Your task to perform on an android device: Search for sushi restaurants on Maps Image 0: 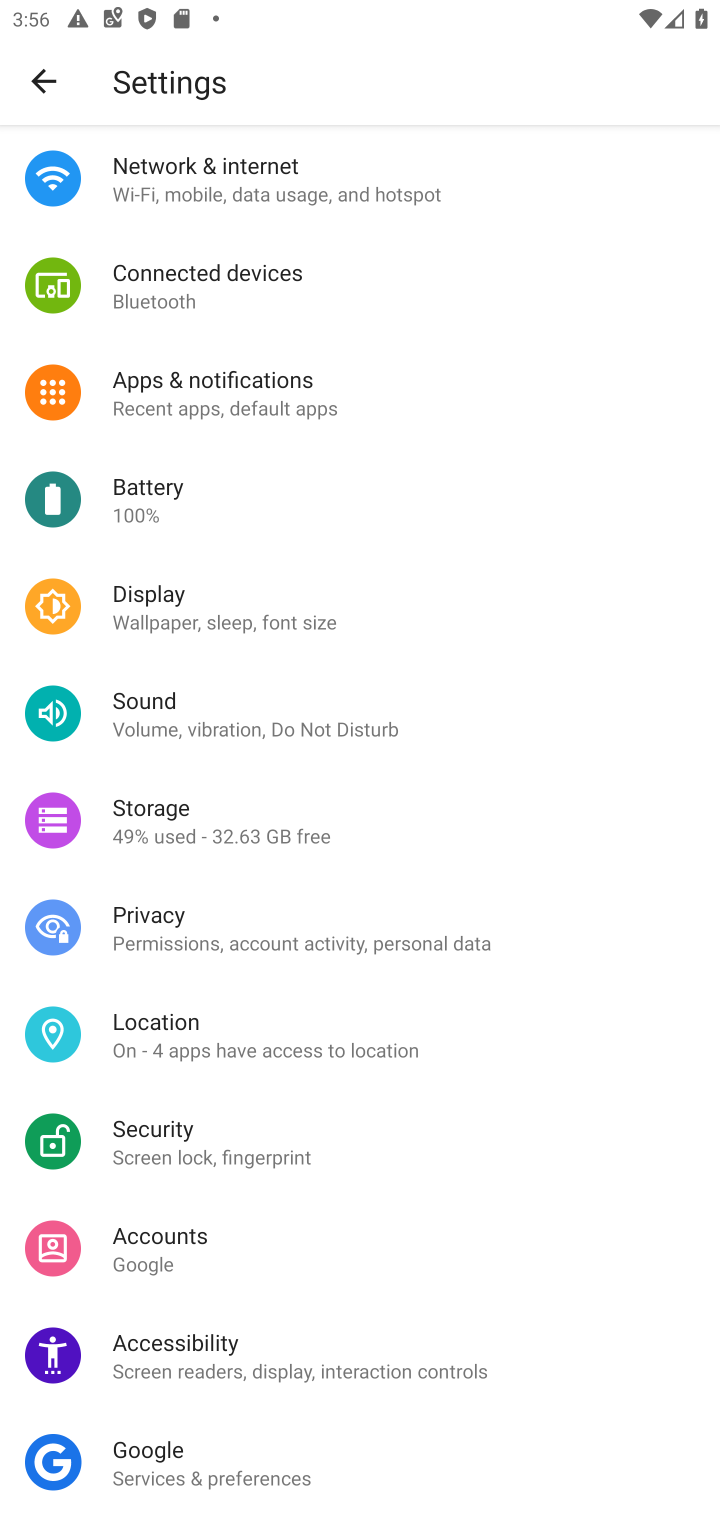
Step 0: press home button
Your task to perform on an android device: Search for sushi restaurants on Maps Image 1: 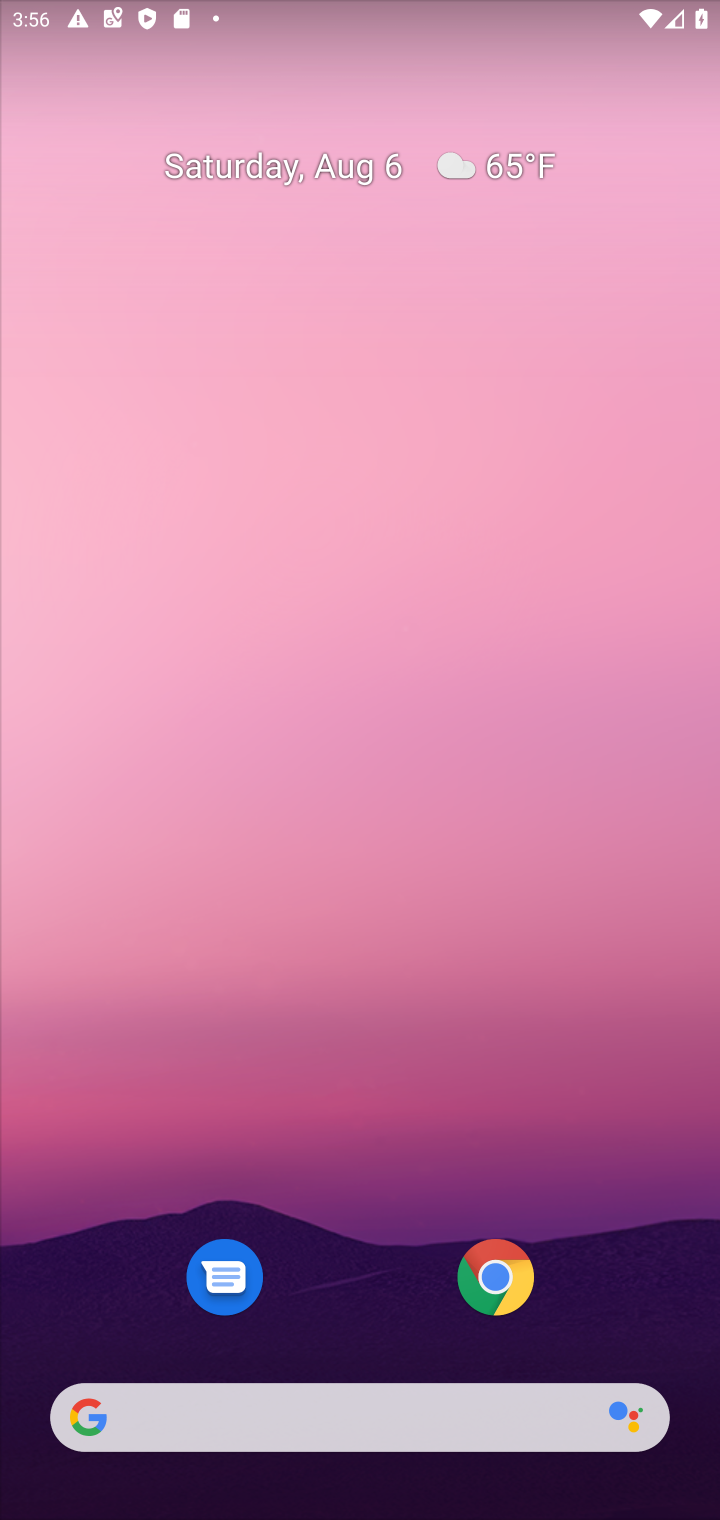
Step 1: drag from (365, 1405) to (520, 341)
Your task to perform on an android device: Search for sushi restaurants on Maps Image 2: 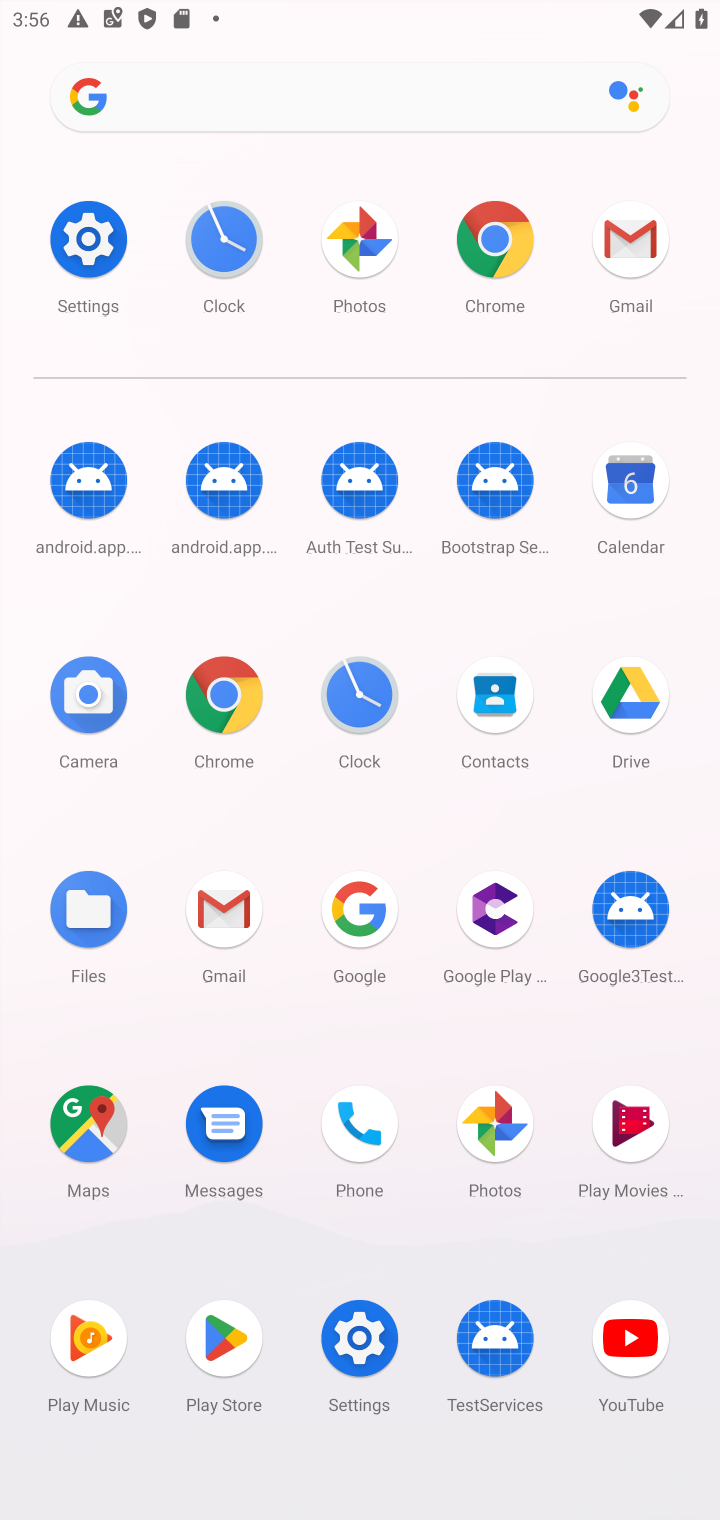
Step 2: click (59, 1142)
Your task to perform on an android device: Search for sushi restaurants on Maps Image 3: 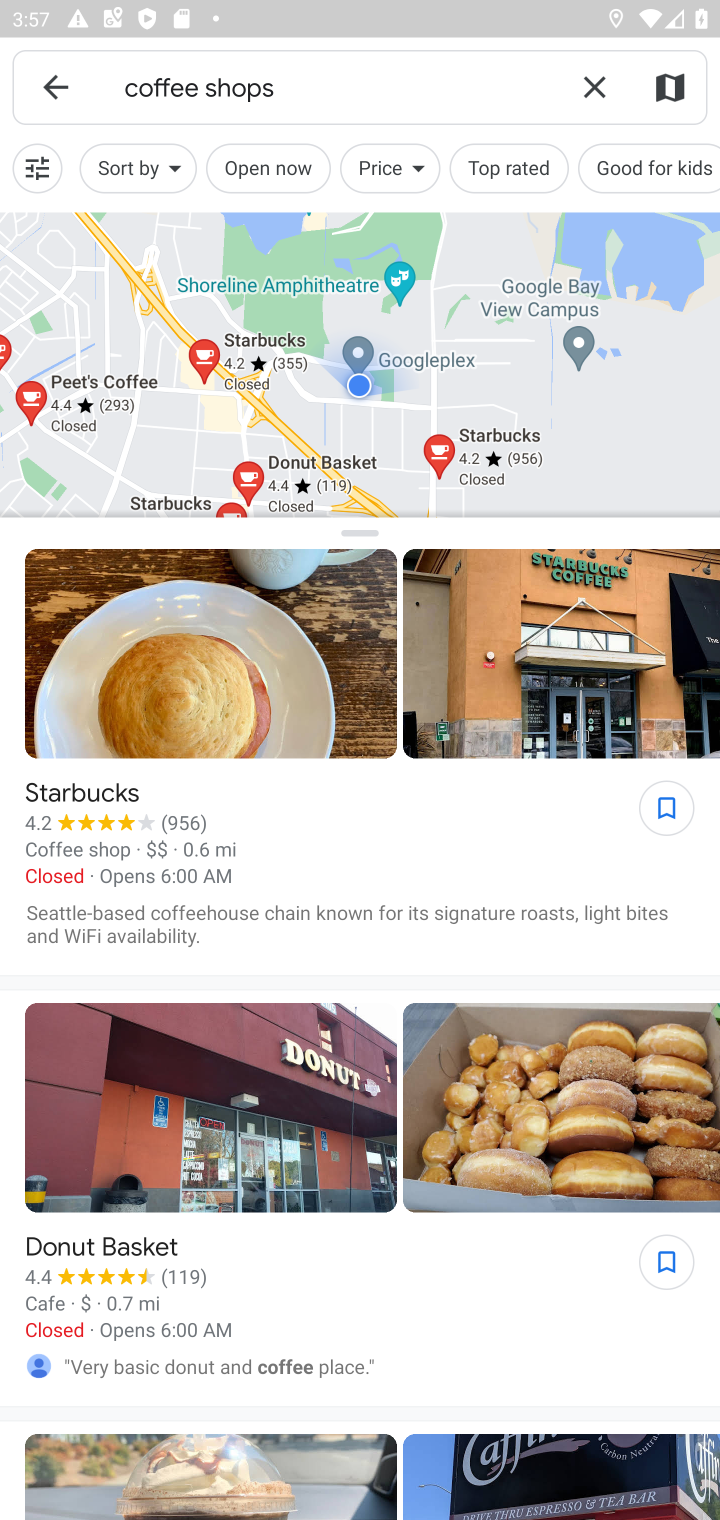
Step 3: click (592, 81)
Your task to perform on an android device: Search for sushi restaurants on Maps Image 4: 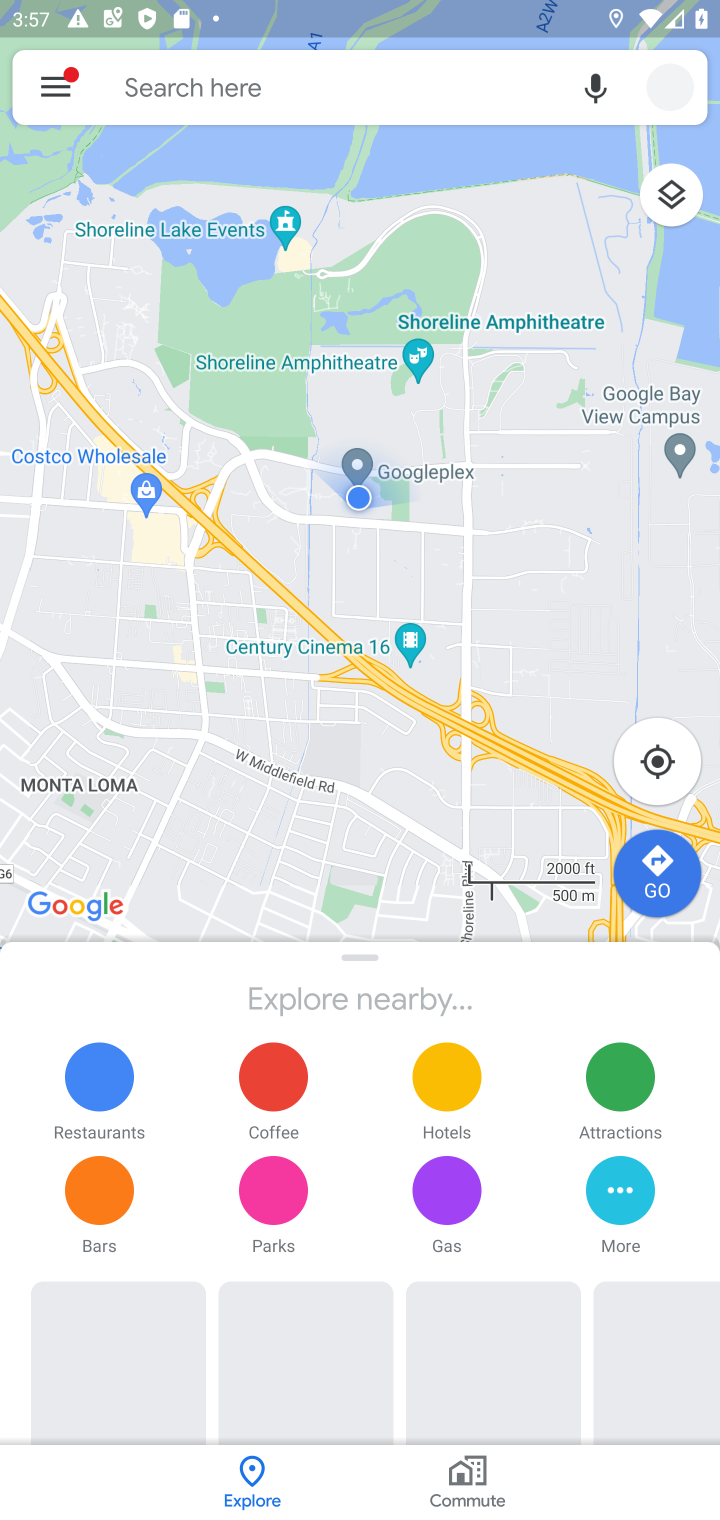
Step 4: click (444, 82)
Your task to perform on an android device: Search for sushi restaurants on Maps Image 5: 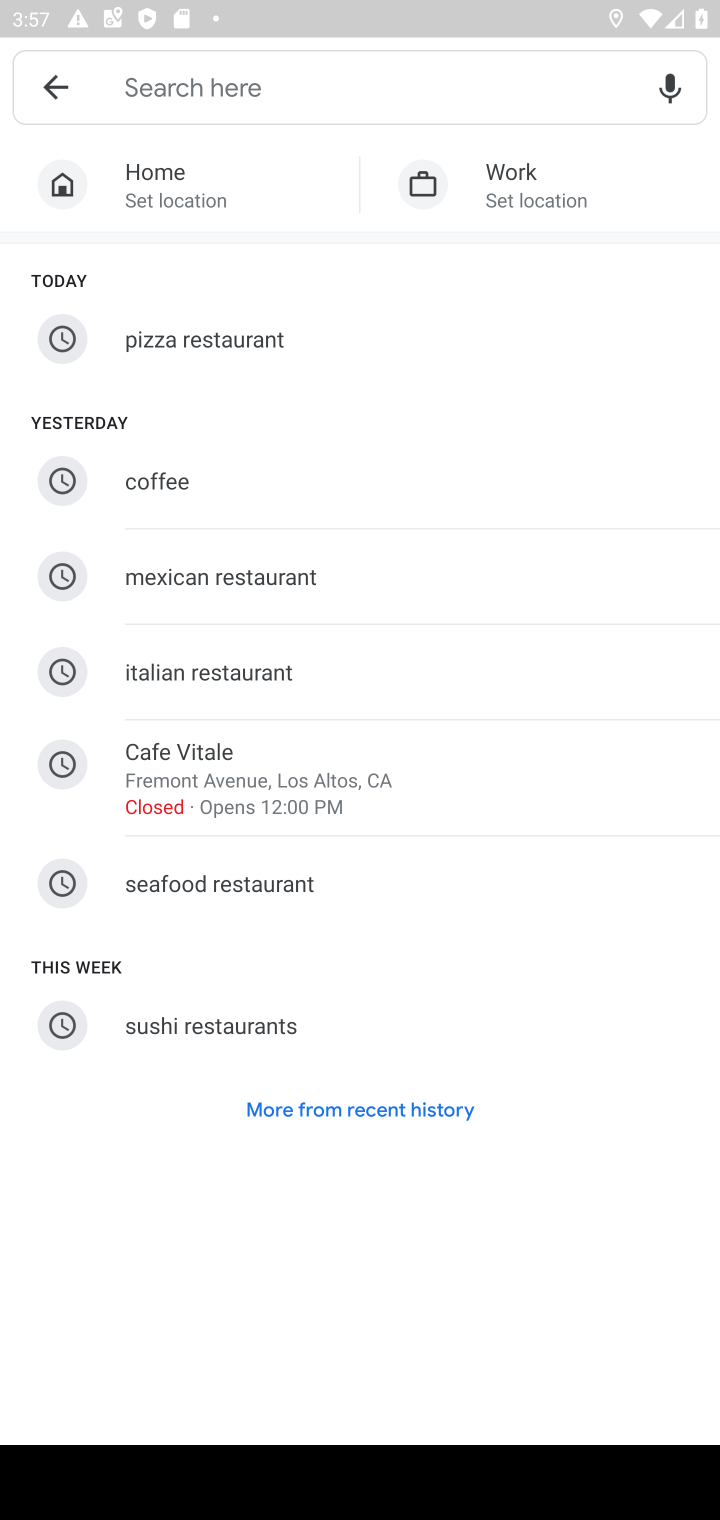
Step 5: click (212, 1012)
Your task to perform on an android device: Search for sushi restaurants on Maps Image 6: 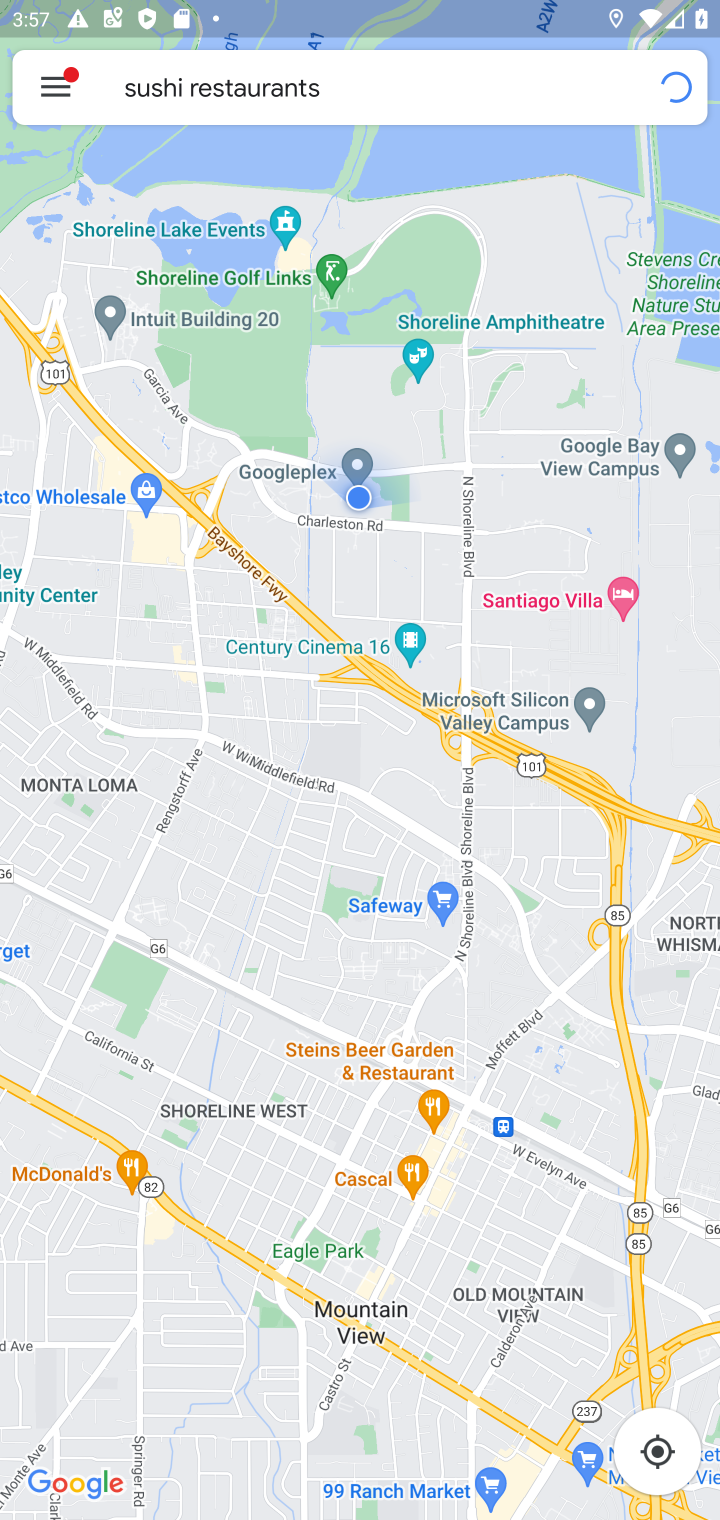
Step 6: task complete